Your task to perform on an android device: Go to settings Image 0: 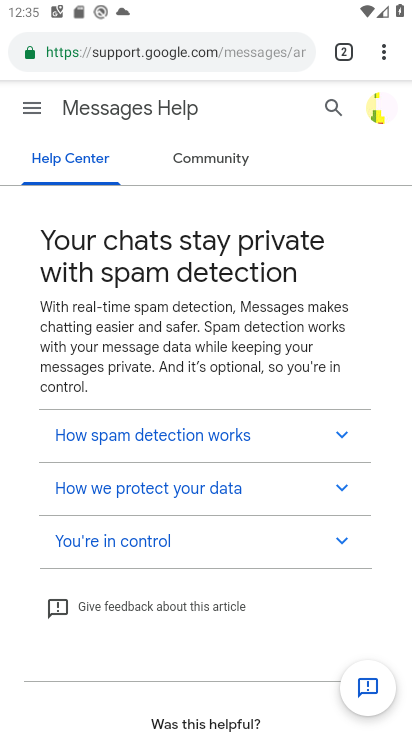
Step 0: press home button
Your task to perform on an android device: Go to settings Image 1: 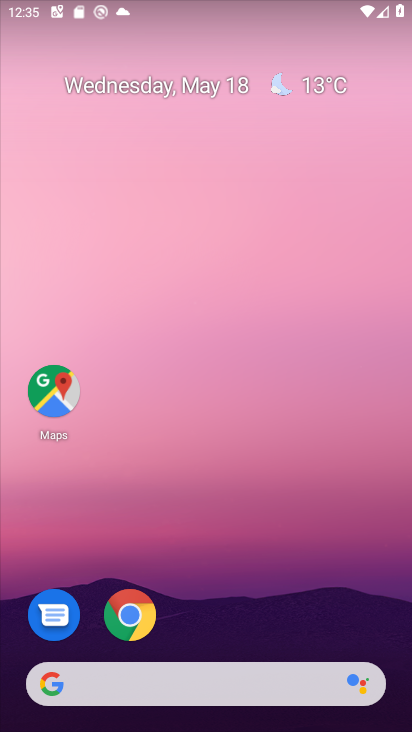
Step 1: drag from (396, 682) to (399, 336)
Your task to perform on an android device: Go to settings Image 2: 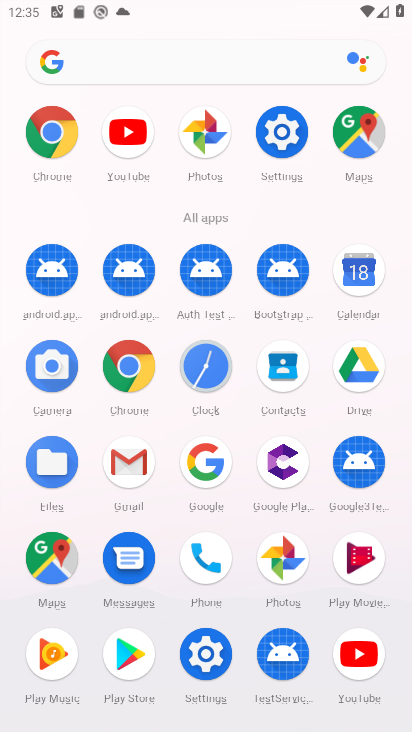
Step 2: click (270, 141)
Your task to perform on an android device: Go to settings Image 3: 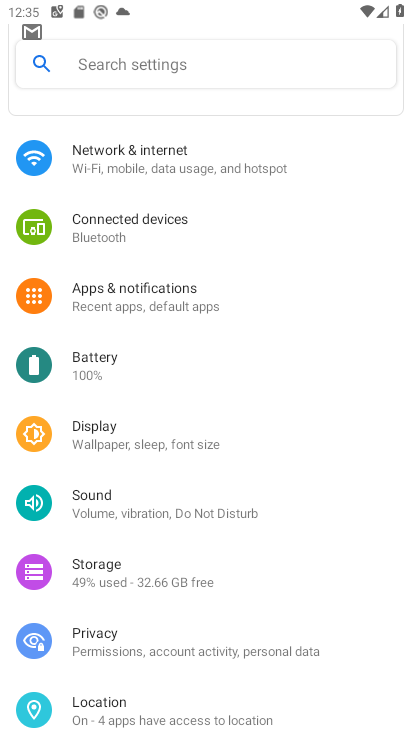
Step 3: task complete